Your task to perform on an android device: toggle javascript in the chrome app Image 0: 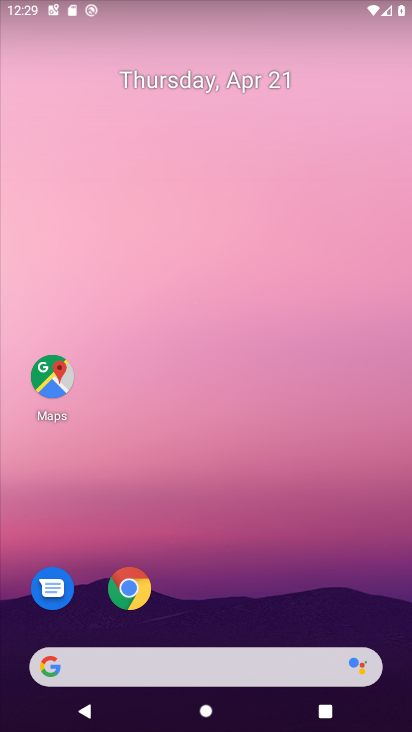
Step 0: click (125, 582)
Your task to perform on an android device: toggle javascript in the chrome app Image 1: 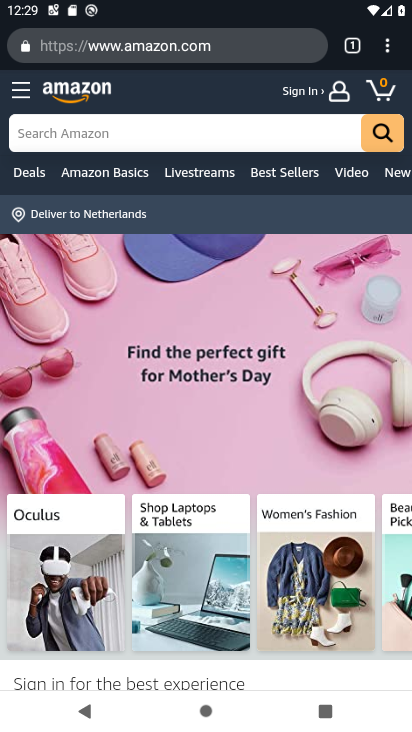
Step 1: click (390, 40)
Your task to perform on an android device: toggle javascript in the chrome app Image 2: 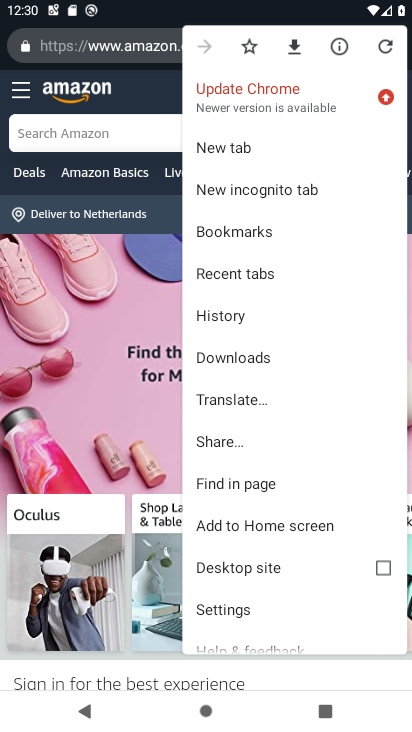
Step 2: click (258, 608)
Your task to perform on an android device: toggle javascript in the chrome app Image 3: 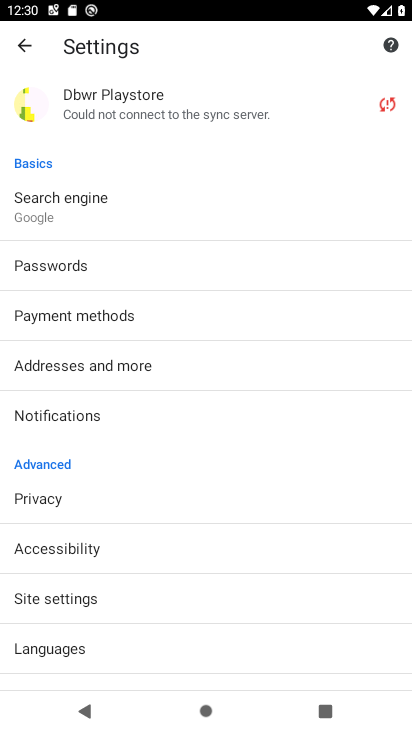
Step 3: click (115, 602)
Your task to perform on an android device: toggle javascript in the chrome app Image 4: 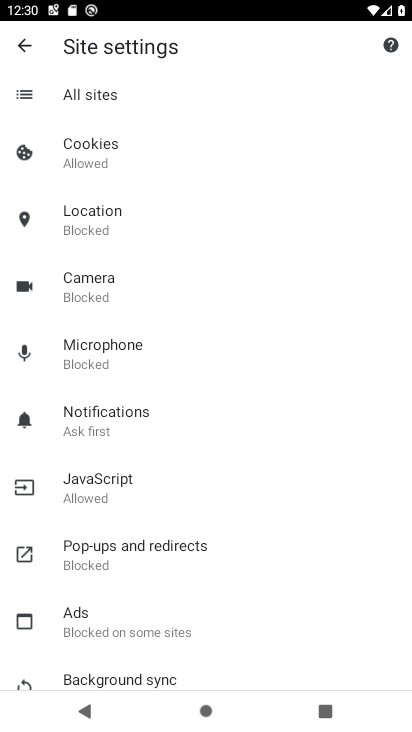
Step 4: click (127, 481)
Your task to perform on an android device: toggle javascript in the chrome app Image 5: 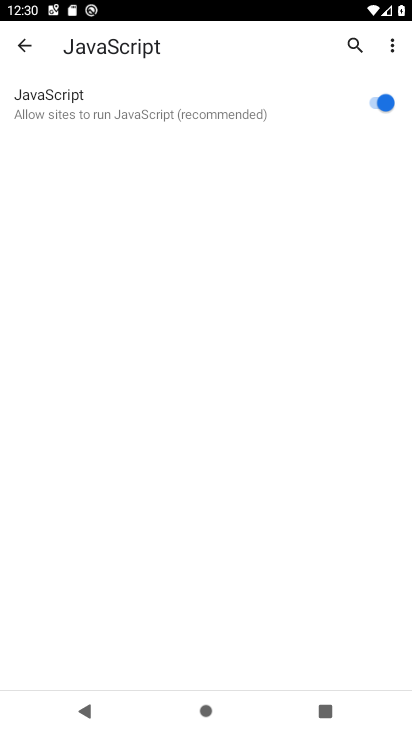
Step 5: task complete